Your task to perform on an android device: change alarm snooze length Image 0: 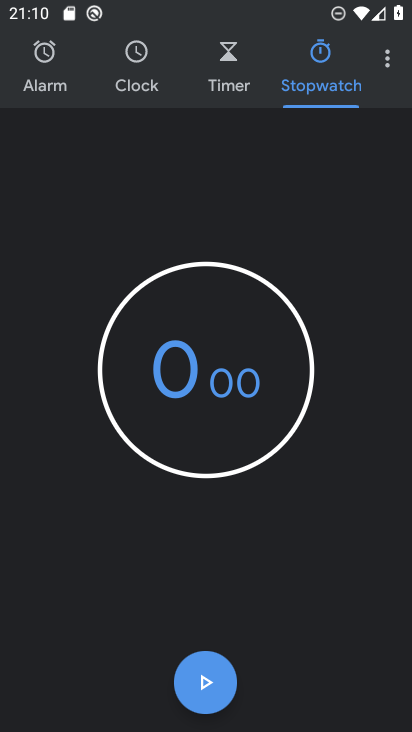
Step 0: press home button
Your task to perform on an android device: change alarm snooze length Image 1: 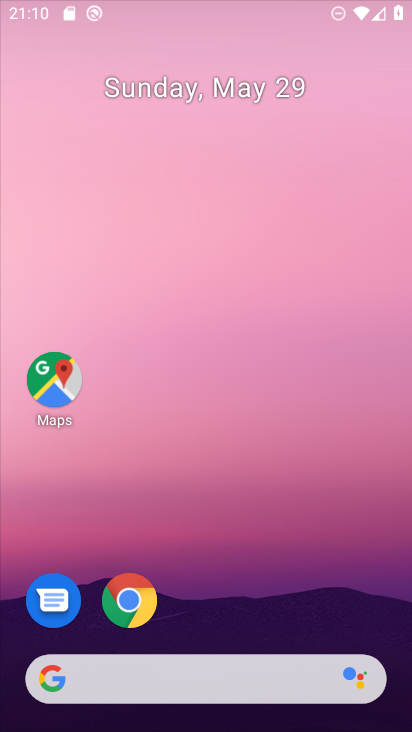
Step 1: drag from (323, 543) to (350, 125)
Your task to perform on an android device: change alarm snooze length Image 2: 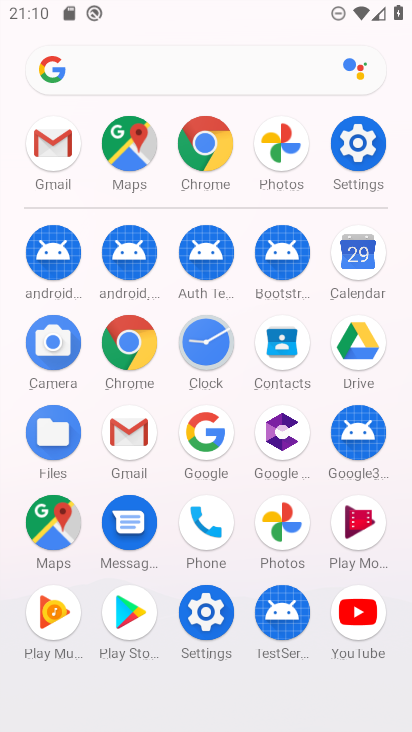
Step 2: click (212, 353)
Your task to perform on an android device: change alarm snooze length Image 3: 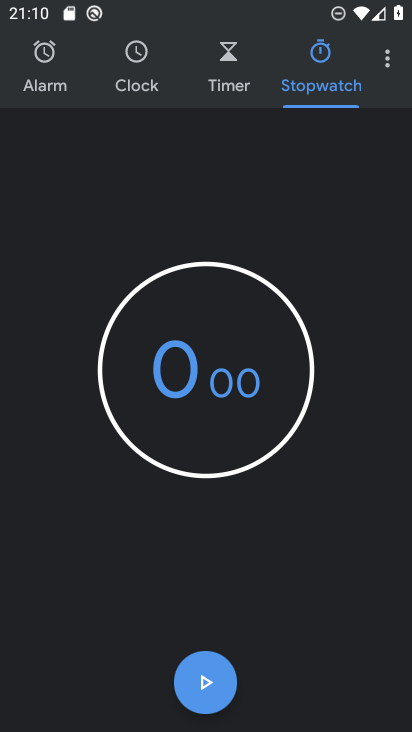
Step 3: click (393, 58)
Your task to perform on an android device: change alarm snooze length Image 4: 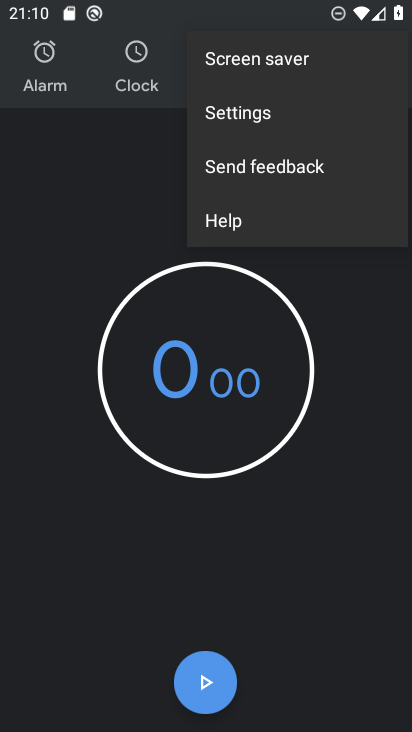
Step 4: click (300, 122)
Your task to perform on an android device: change alarm snooze length Image 5: 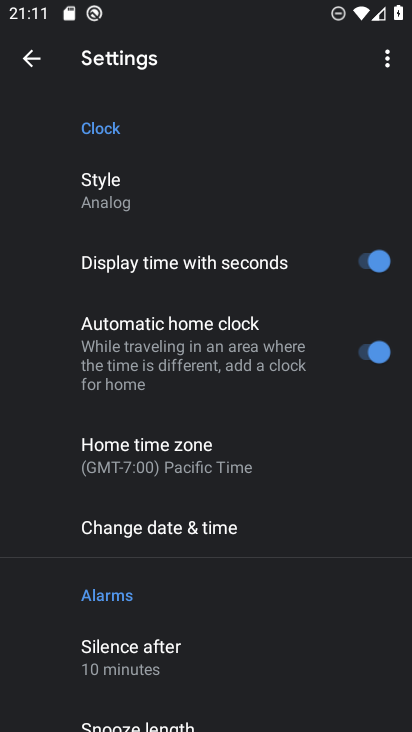
Step 5: drag from (221, 669) to (259, 420)
Your task to perform on an android device: change alarm snooze length Image 6: 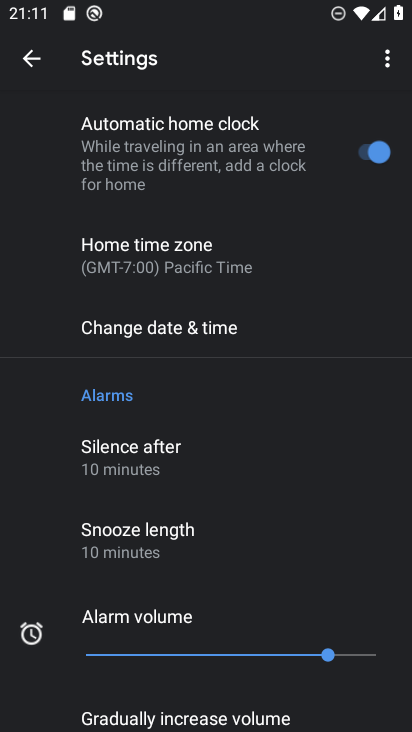
Step 6: click (227, 543)
Your task to perform on an android device: change alarm snooze length Image 7: 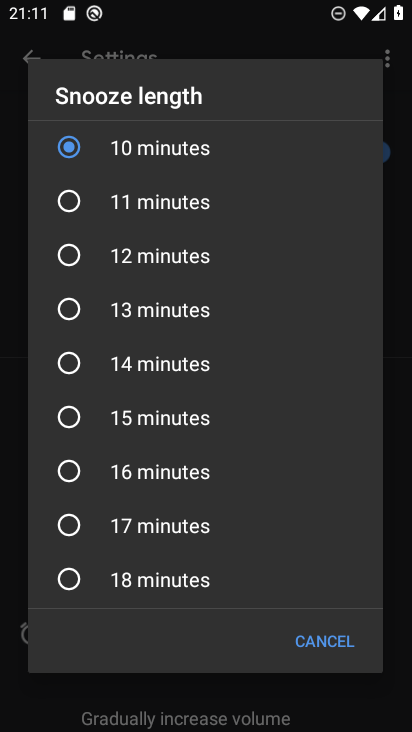
Step 7: click (176, 542)
Your task to perform on an android device: change alarm snooze length Image 8: 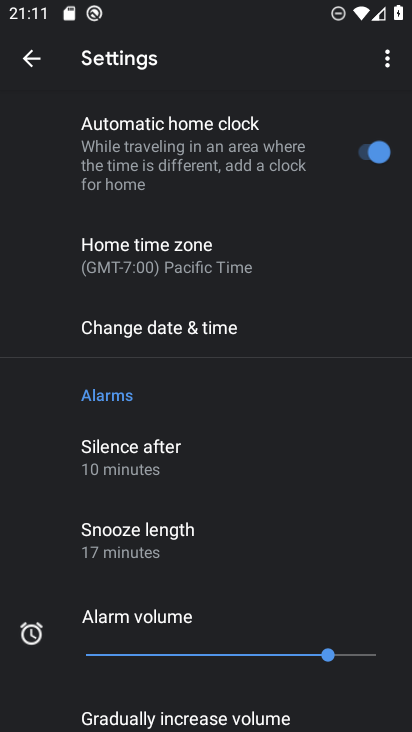
Step 8: task complete